Your task to perform on an android device: Search for vegetarian restaurants on Maps Image 0: 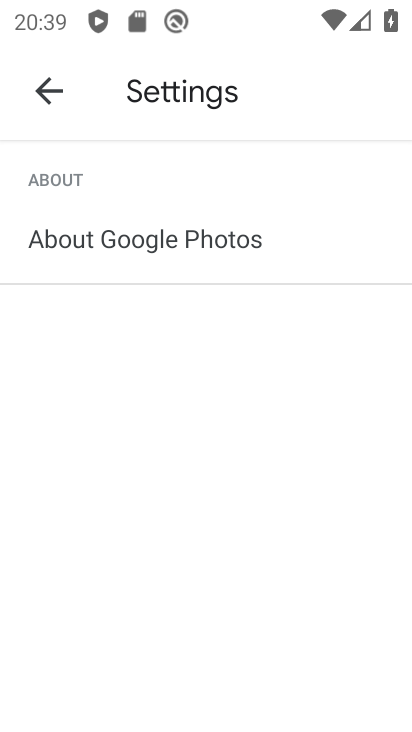
Step 0: press home button
Your task to perform on an android device: Search for vegetarian restaurants on Maps Image 1: 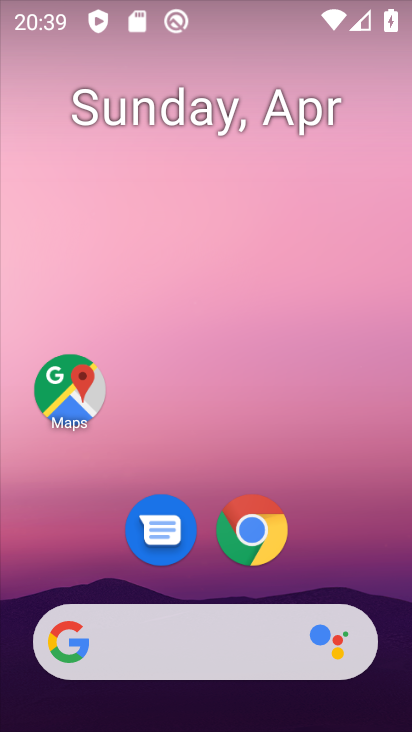
Step 1: click (72, 378)
Your task to perform on an android device: Search for vegetarian restaurants on Maps Image 2: 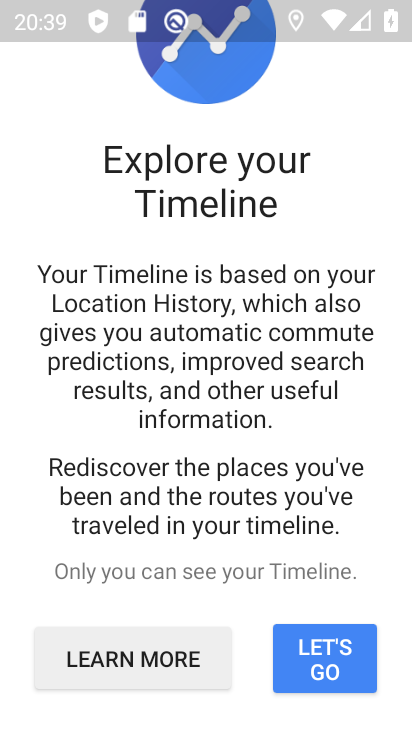
Step 2: click (304, 658)
Your task to perform on an android device: Search for vegetarian restaurants on Maps Image 3: 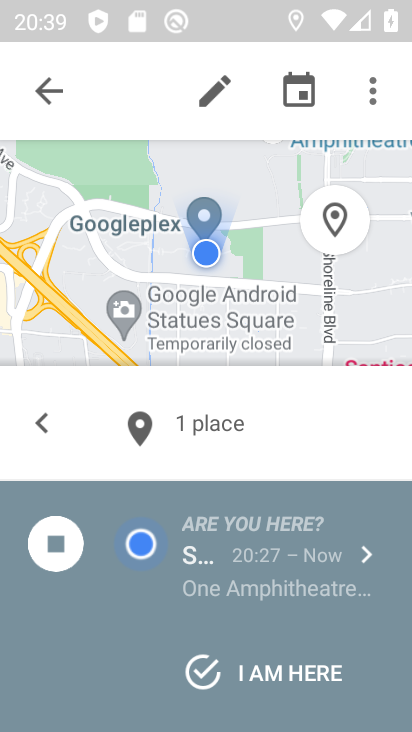
Step 3: click (39, 98)
Your task to perform on an android device: Search for vegetarian restaurants on Maps Image 4: 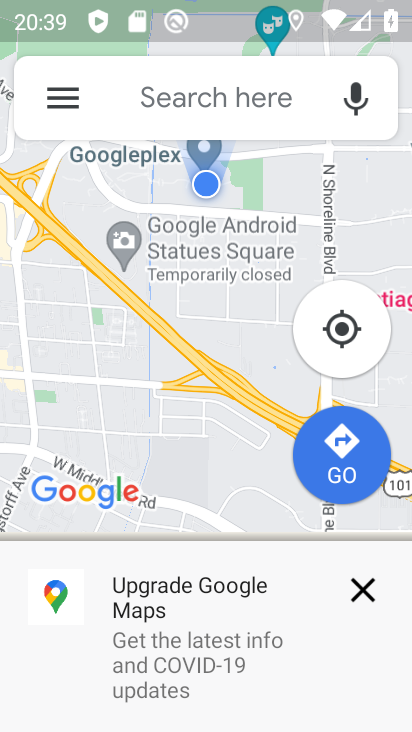
Step 4: click (180, 89)
Your task to perform on an android device: Search for vegetarian restaurants on Maps Image 5: 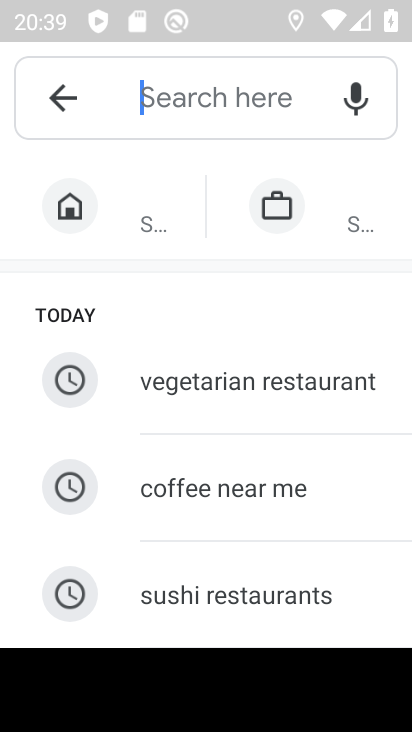
Step 5: click (231, 391)
Your task to perform on an android device: Search for vegetarian restaurants on Maps Image 6: 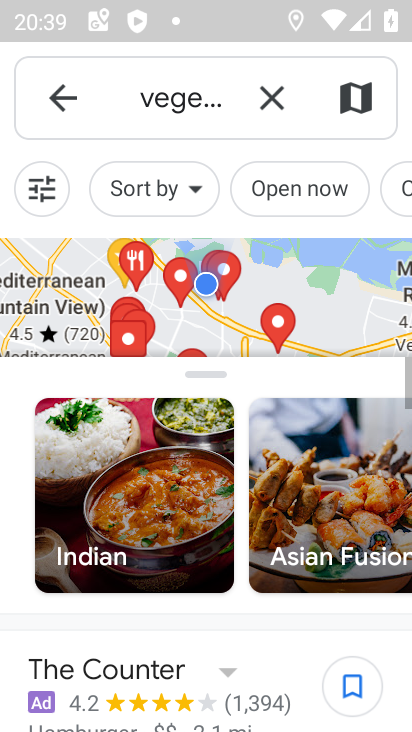
Step 6: task complete